Your task to perform on an android device: When is my next meeting? Image 0: 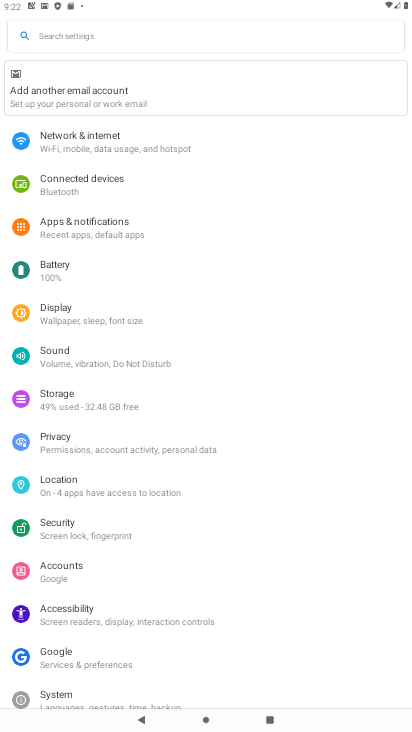
Step 0: press home button
Your task to perform on an android device: When is my next meeting? Image 1: 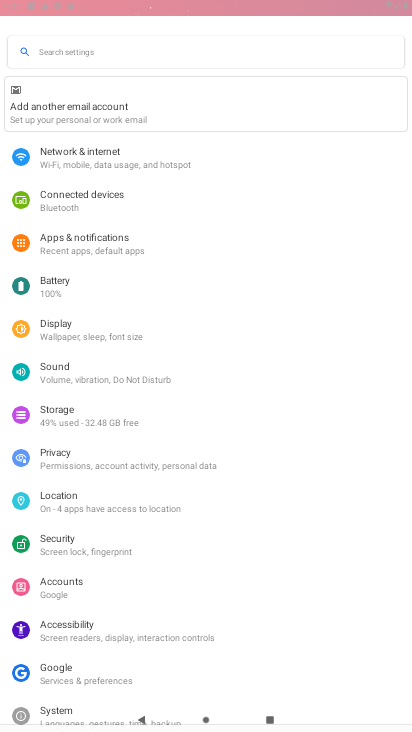
Step 1: drag from (199, 654) to (284, 198)
Your task to perform on an android device: When is my next meeting? Image 2: 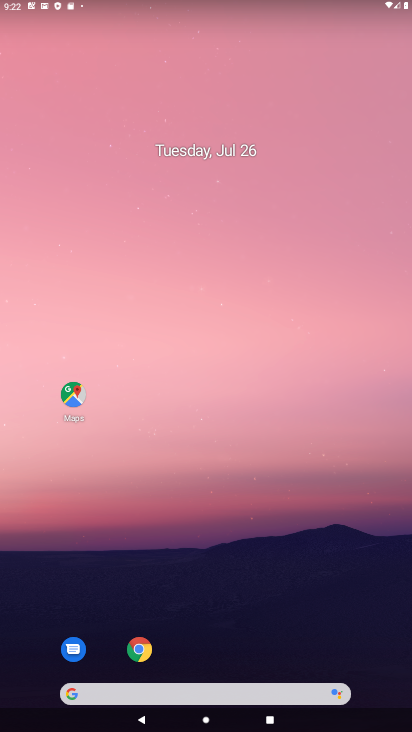
Step 2: drag from (189, 654) to (250, 230)
Your task to perform on an android device: When is my next meeting? Image 3: 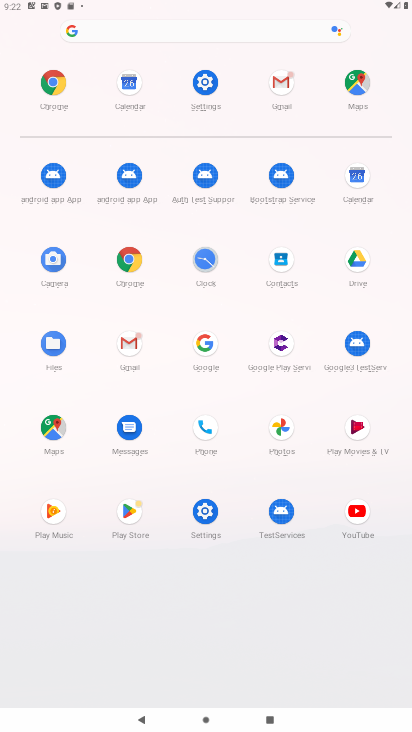
Step 3: click (358, 182)
Your task to perform on an android device: When is my next meeting? Image 4: 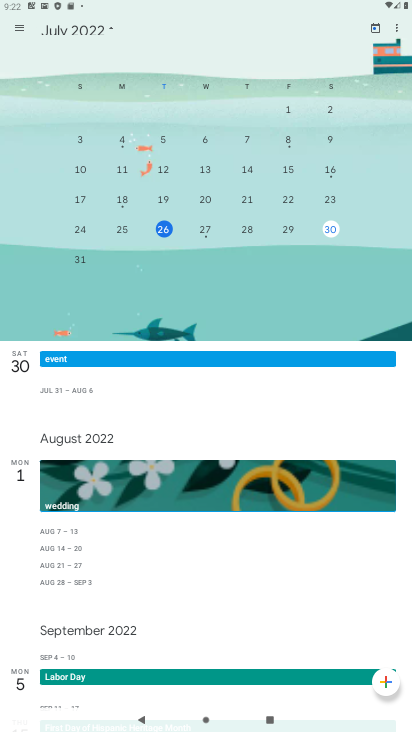
Step 4: click (367, 23)
Your task to perform on an android device: When is my next meeting? Image 5: 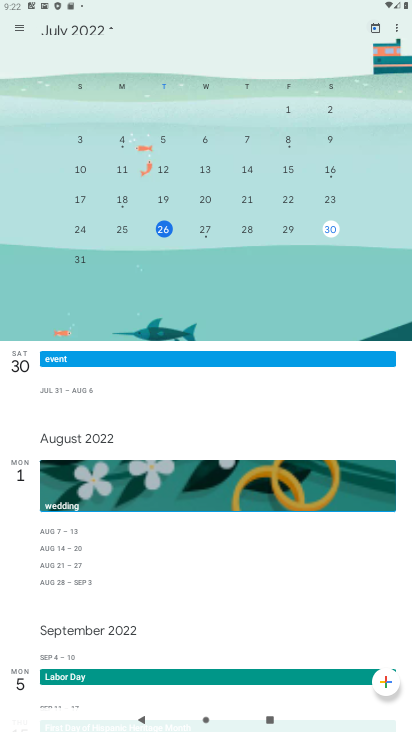
Step 5: click (374, 23)
Your task to perform on an android device: When is my next meeting? Image 6: 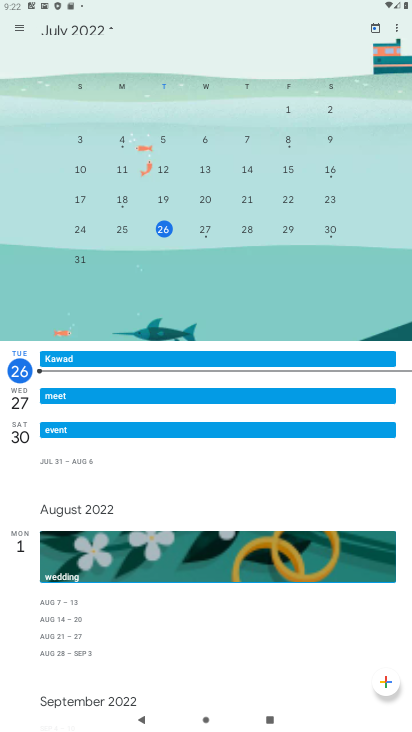
Step 6: click (196, 225)
Your task to perform on an android device: When is my next meeting? Image 7: 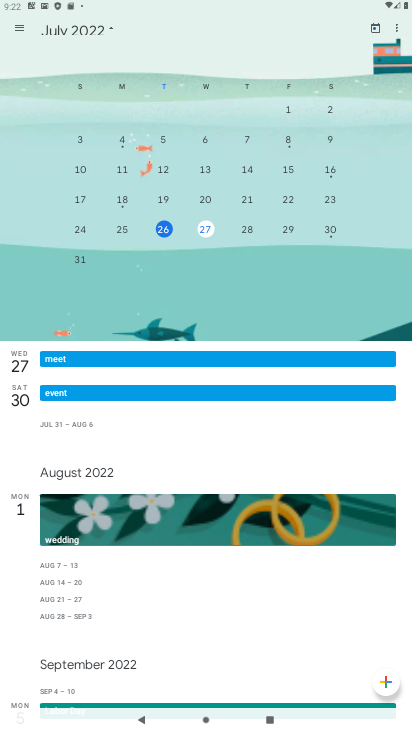
Step 7: click (166, 224)
Your task to perform on an android device: When is my next meeting? Image 8: 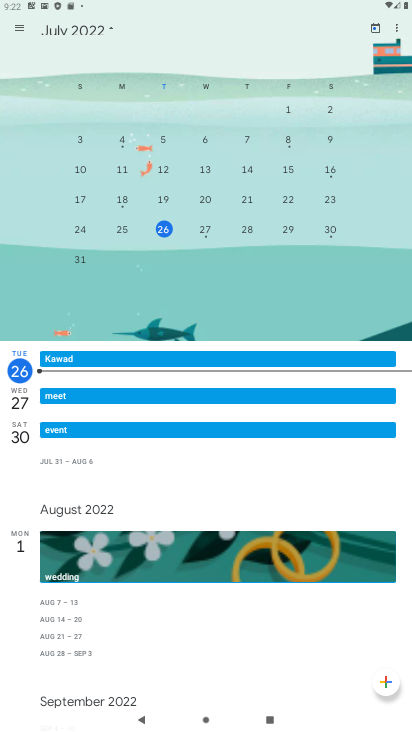
Step 8: task complete